Your task to perform on an android device: toggle javascript in the chrome app Image 0: 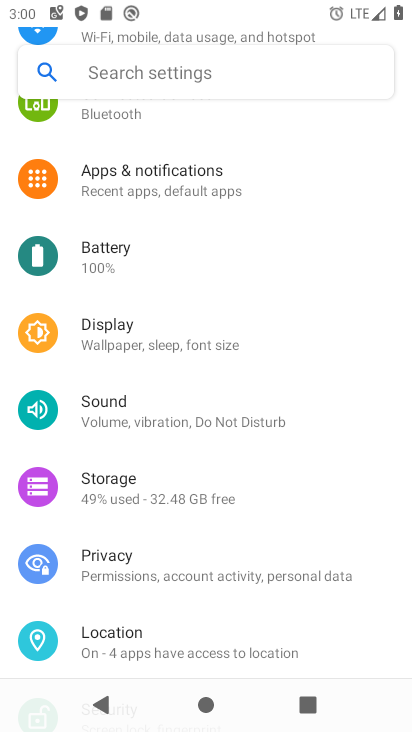
Step 0: press home button
Your task to perform on an android device: toggle javascript in the chrome app Image 1: 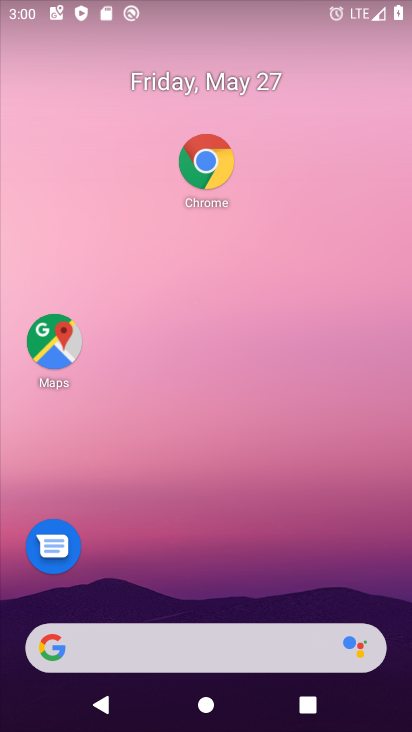
Step 1: click (221, 171)
Your task to perform on an android device: toggle javascript in the chrome app Image 2: 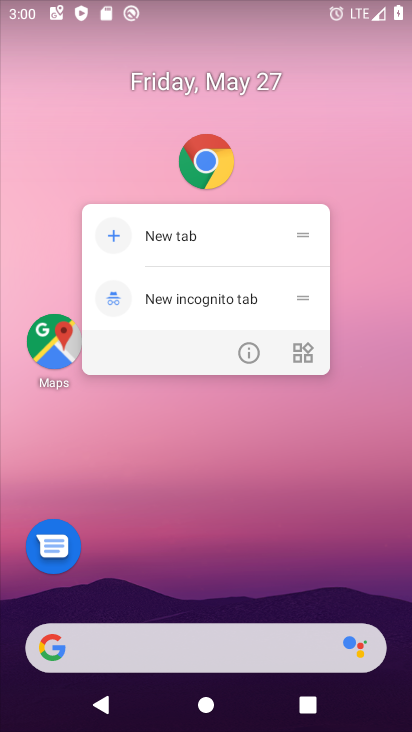
Step 2: click (213, 158)
Your task to perform on an android device: toggle javascript in the chrome app Image 3: 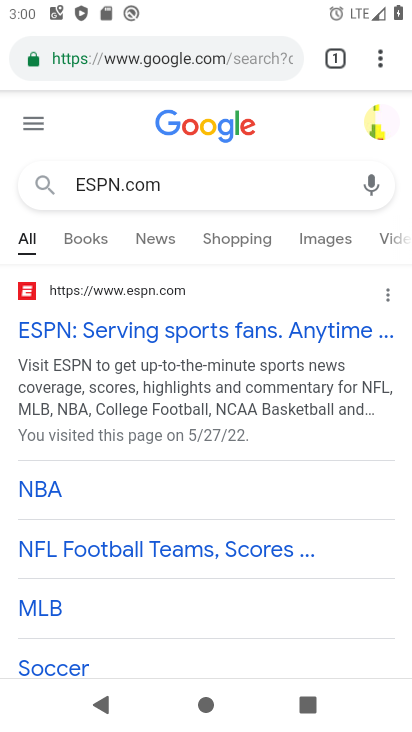
Step 3: click (383, 56)
Your task to perform on an android device: toggle javascript in the chrome app Image 4: 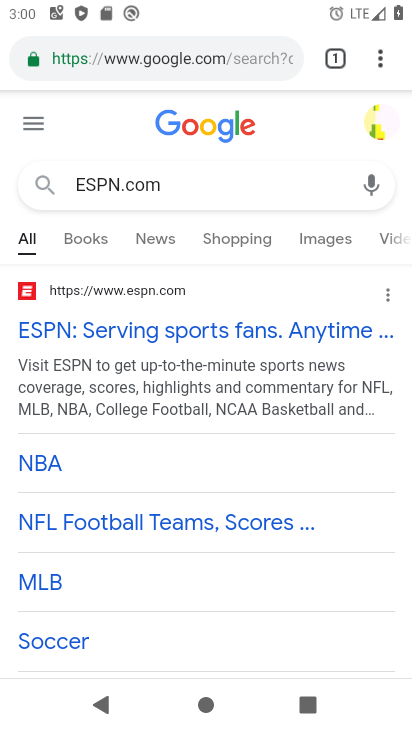
Step 4: click (384, 55)
Your task to perform on an android device: toggle javascript in the chrome app Image 5: 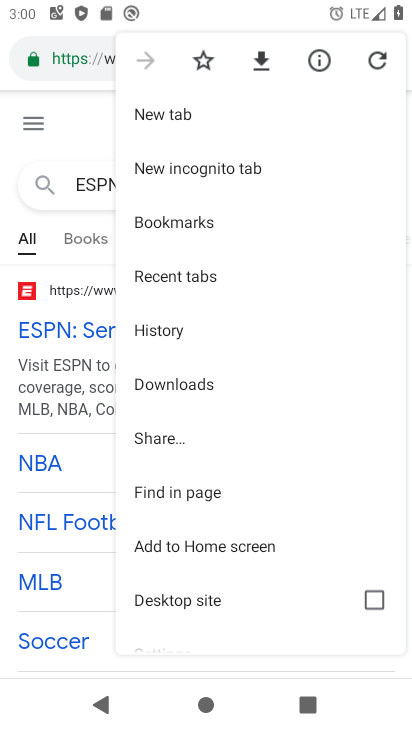
Step 5: drag from (197, 340) to (286, 160)
Your task to perform on an android device: toggle javascript in the chrome app Image 6: 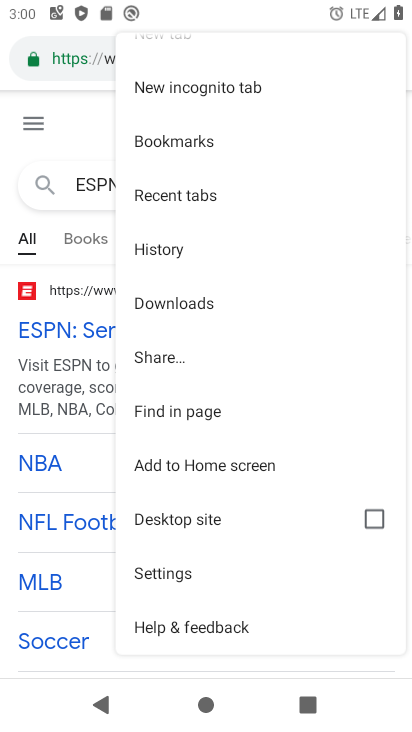
Step 6: click (150, 571)
Your task to perform on an android device: toggle javascript in the chrome app Image 7: 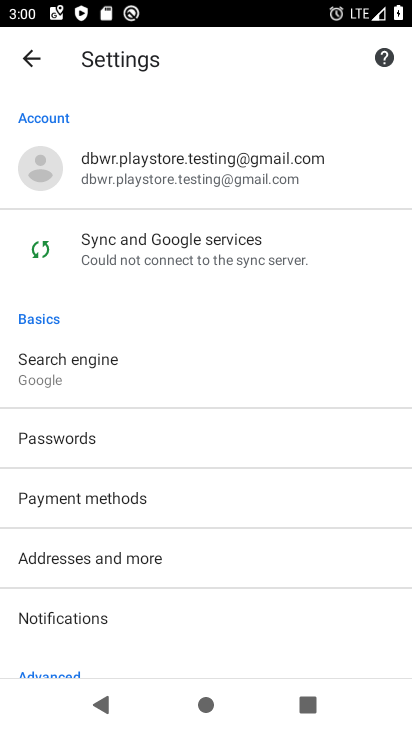
Step 7: drag from (124, 622) to (278, 172)
Your task to perform on an android device: toggle javascript in the chrome app Image 8: 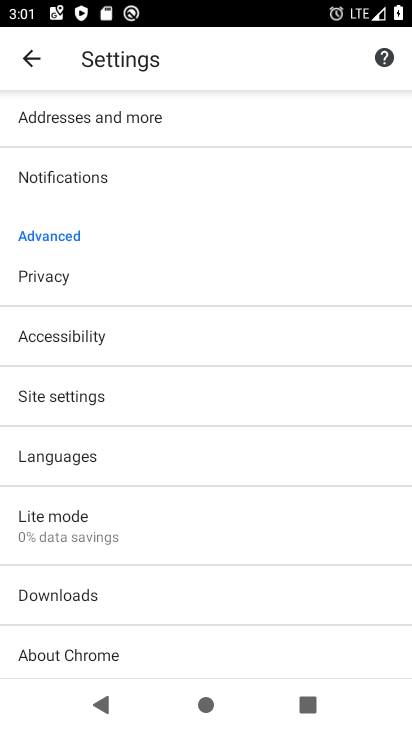
Step 8: click (60, 393)
Your task to perform on an android device: toggle javascript in the chrome app Image 9: 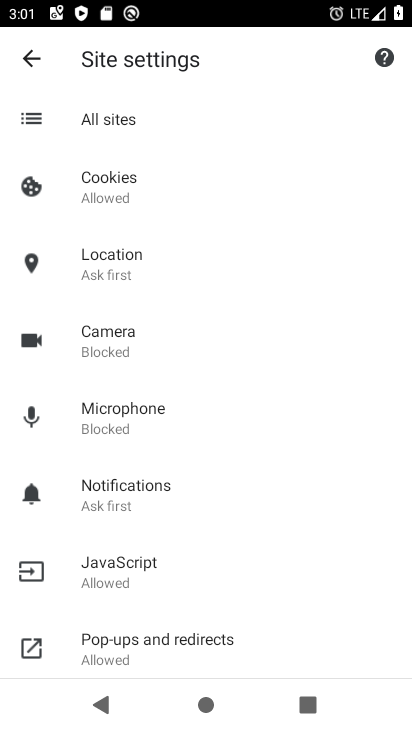
Step 9: click (134, 564)
Your task to perform on an android device: toggle javascript in the chrome app Image 10: 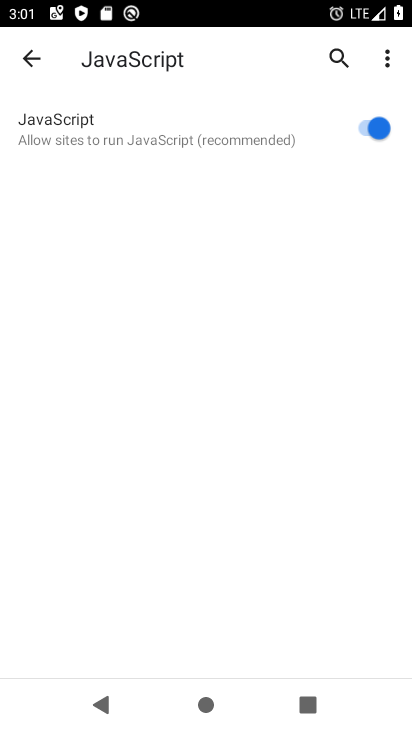
Step 10: click (359, 132)
Your task to perform on an android device: toggle javascript in the chrome app Image 11: 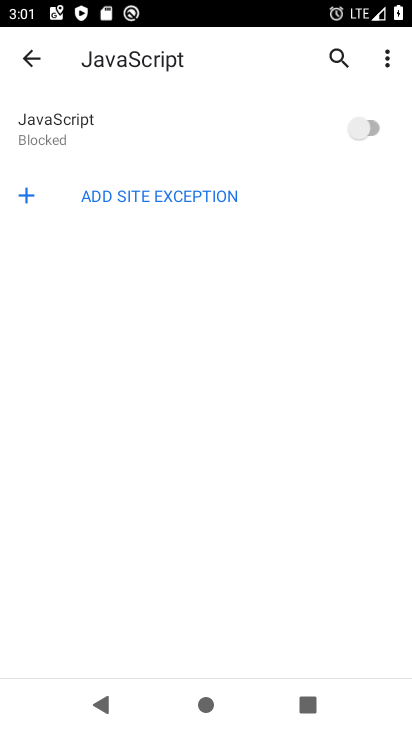
Step 11: task complete